Your task to perform on an android device: snooze an email in the gmail app Image 0: 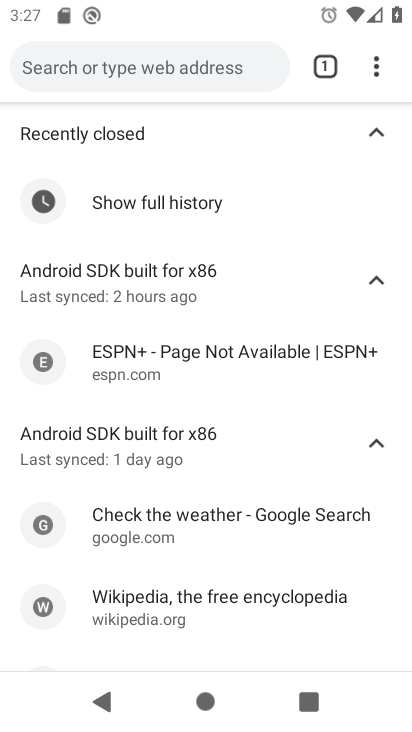
Step 0: press home button
Your task to perform on an android device: snooze an email in the gmail app Image 1: 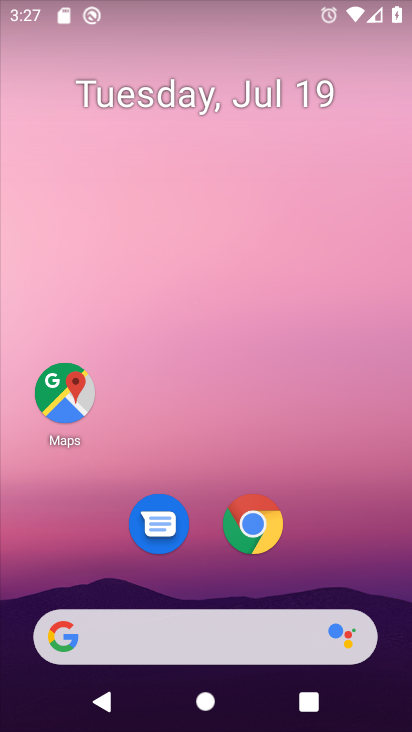
Step 1: drag from (308, 579) to (316, 50)
Your task to perform on an android device: snooze an email in the gmail app Image 2: 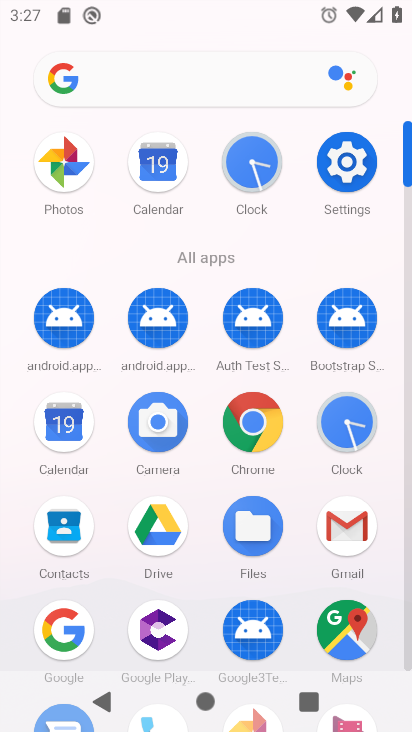
Step 2: click (355, 526)
Your task to perform on an android device: snooze an email in the gmail app Image 3: 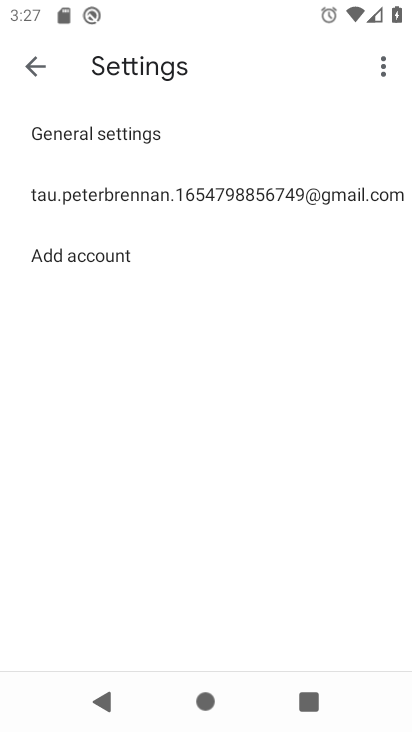
Step 3: click (36, 64)
Your task to perform on an android device: snooze an email in the gmail app Image 4: 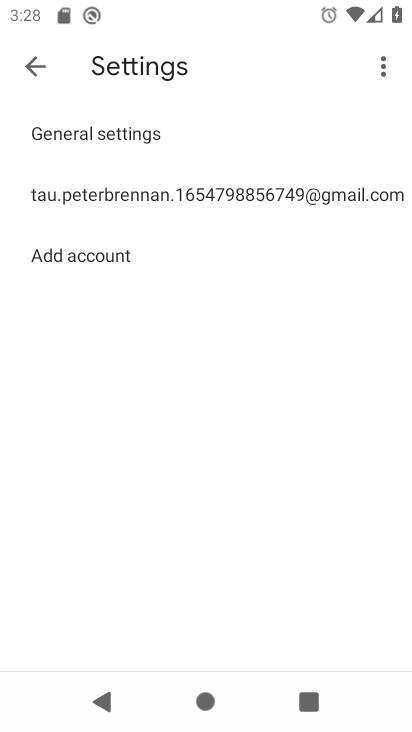
Step 4: click (36, 65)
Your task to perform on an android device: snooze an email in the gmail app Image 5: 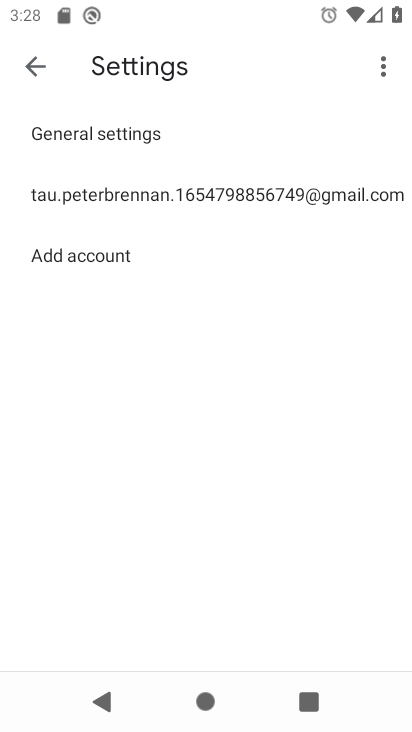
Step 5: click (36, 65)
Your task to perform on an android device: snooze an email in the gmail app Image 6: 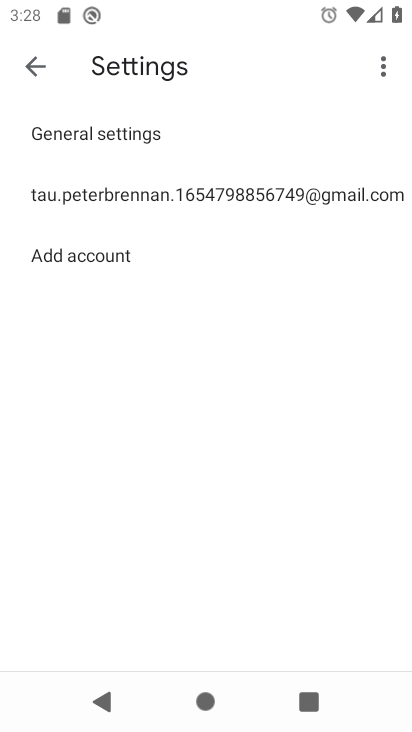
Step 6: click (36, 65)
Your task to perform on an android device: snooze an email in the gmail app Image 7: 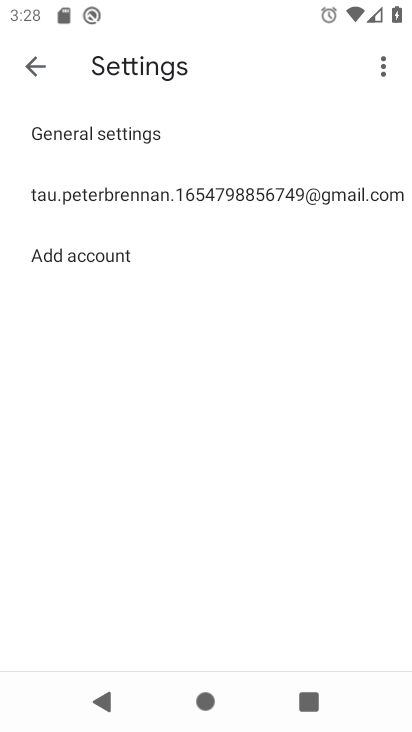
Step 7: click (33, 62)
Your task to perform on an android device: snooze an email in the gmail app Image 8: 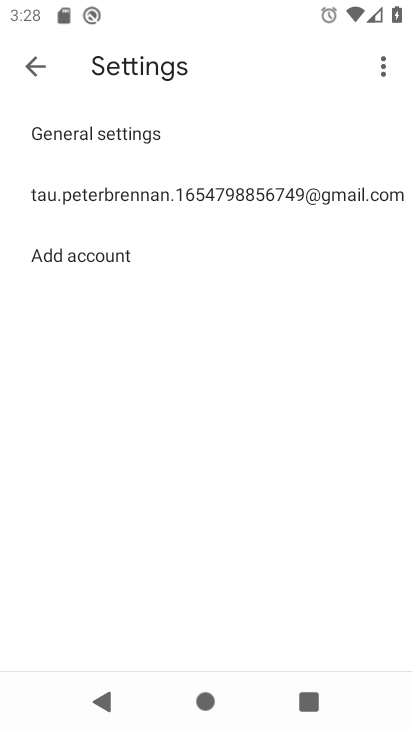
Step 8: click (33, 62)
Your task to perform on an android device: snooze an email in the gmail app Image 9: 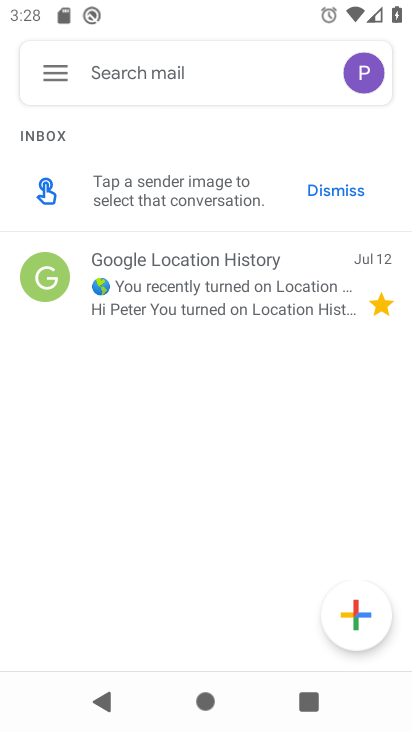
Step 9: click (257, 285)
Your task to perform on an android device: snooze an email in the gmail app Image 10: 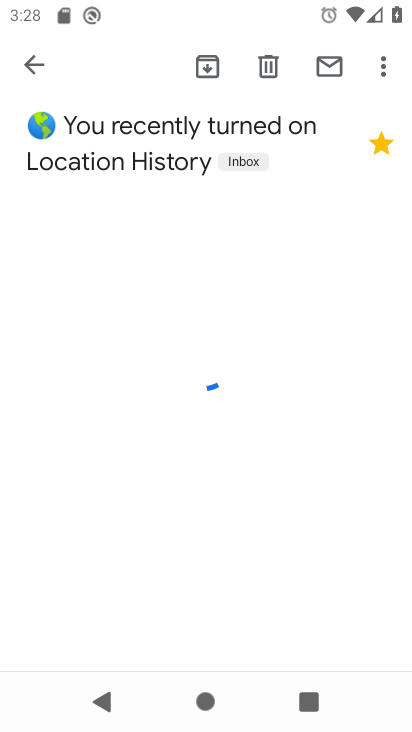
Step 10: click (378, 60)
Your task to perform on an android device: snooze an email in the gmail app Image 11: 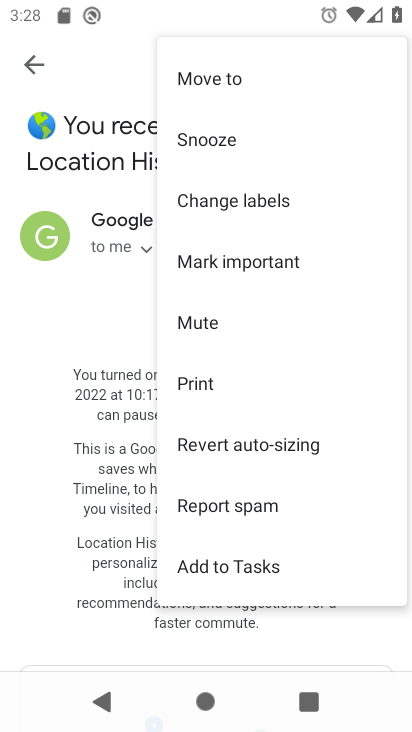
Step 11: click (251, 137)
Your task to perform on an android device: snooze an email in the gmail app Image 12: 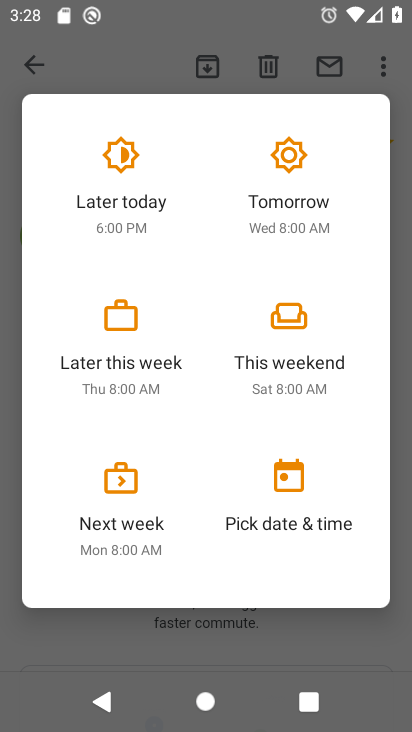
Step 12: click (280, 221)
Your task to perform on an android device: snooze an email in the gmail app Image 13: 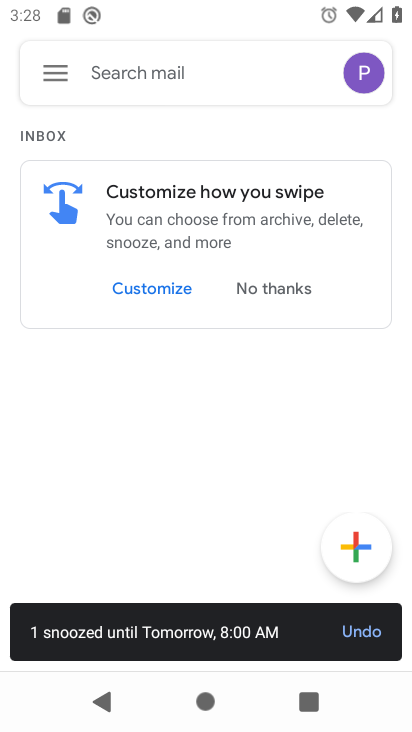
Step 13: task complete